Your task to perform on an android device: set an alarm Image 0: 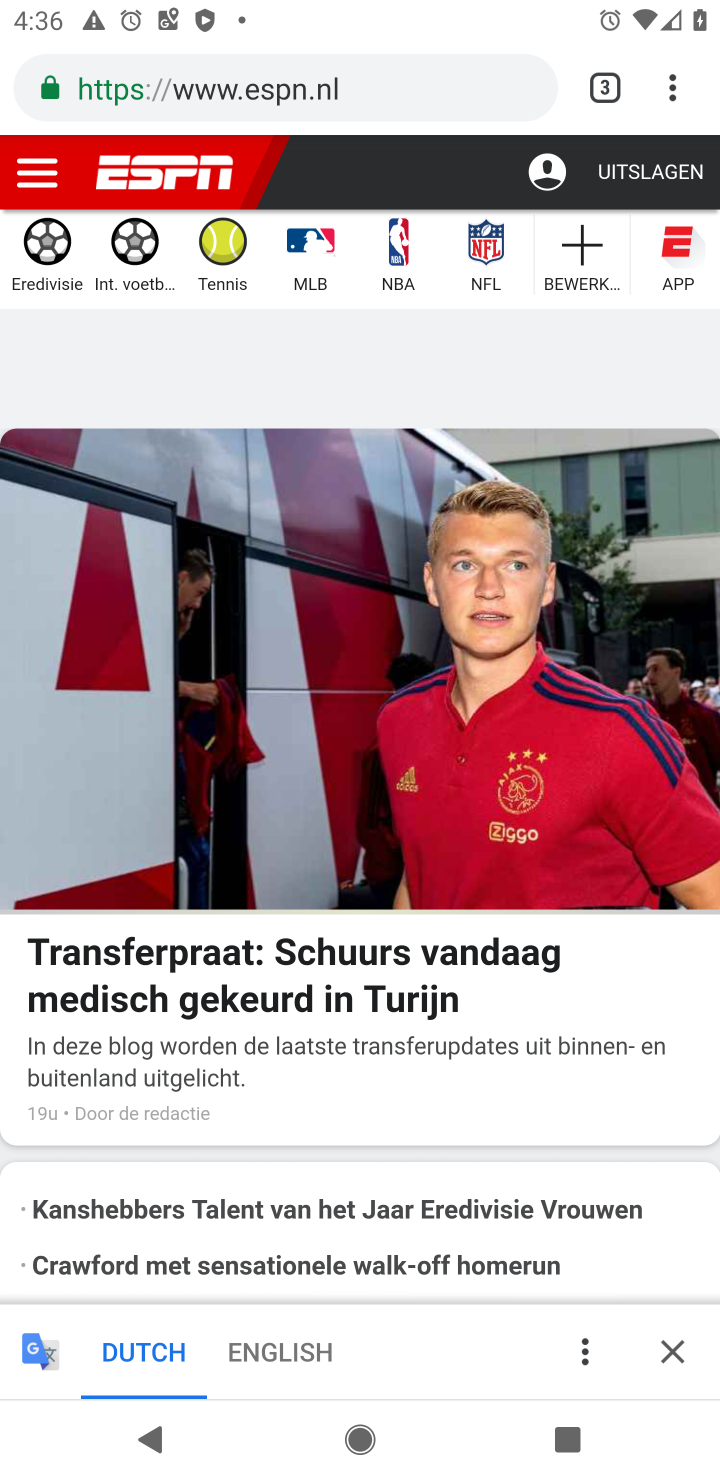
Step 0: press home button
Your task to perform on an android device: set an alarm Image 1: 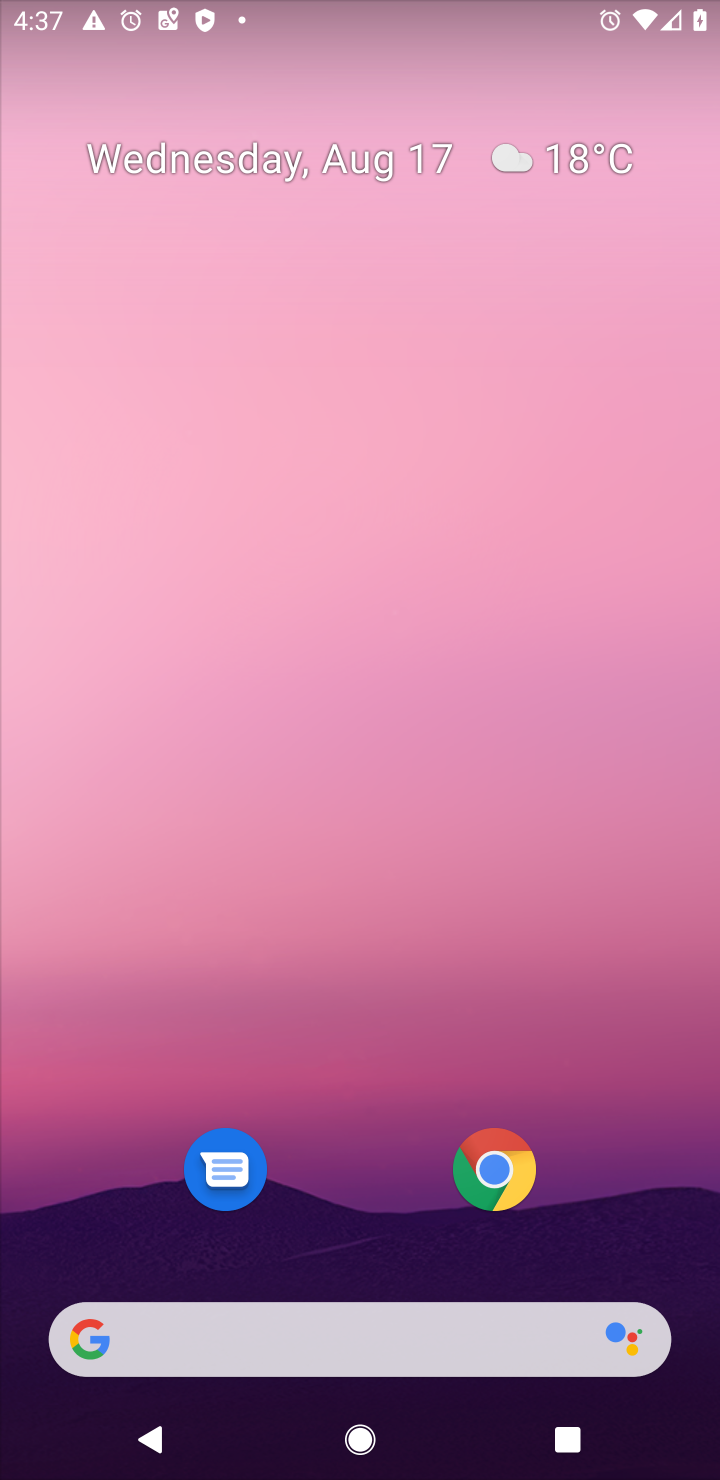
Step 1: drag from (370, 655) to (396, 88)
Your task to perform on an android device: set an alarm Image 2: 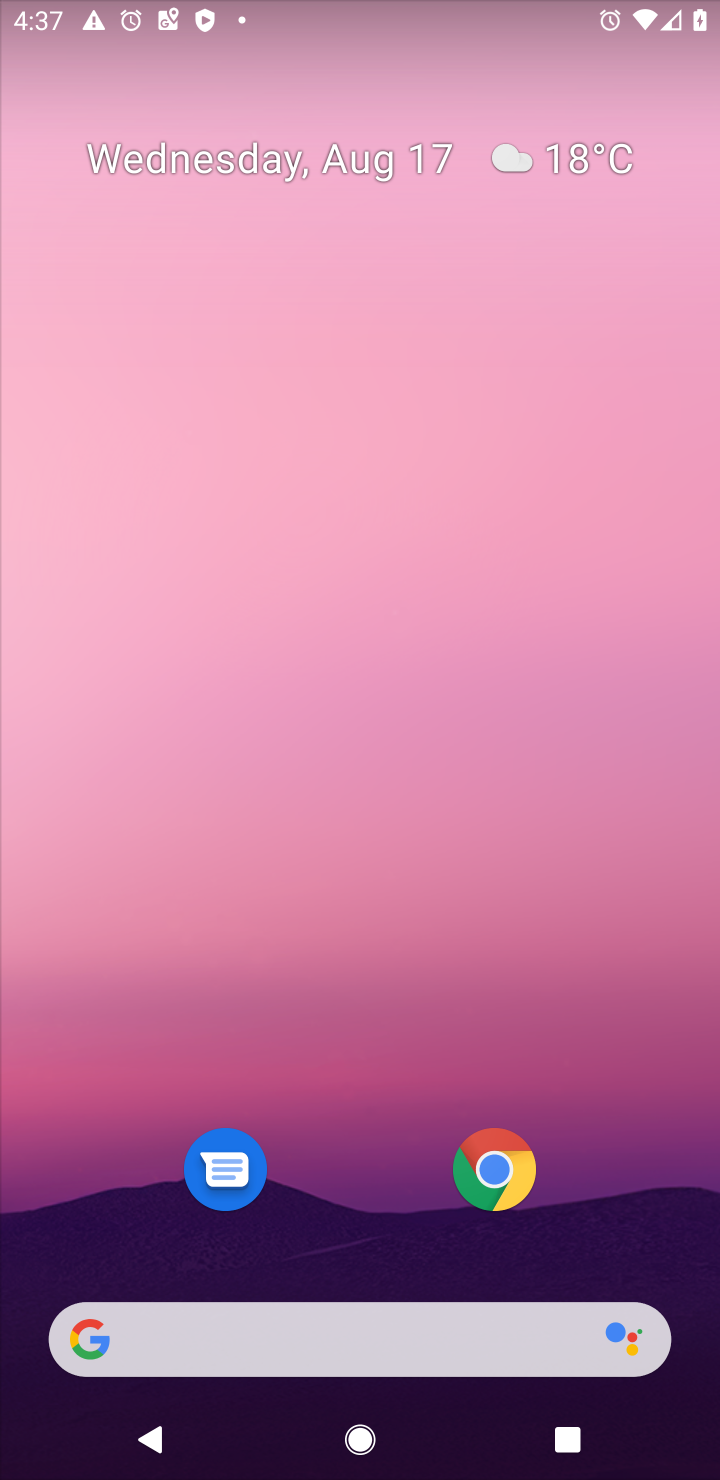
Step 2: drag from (327, 1054) to (263, 176)
Your task to perform on an android device: set an alarm Image 3: 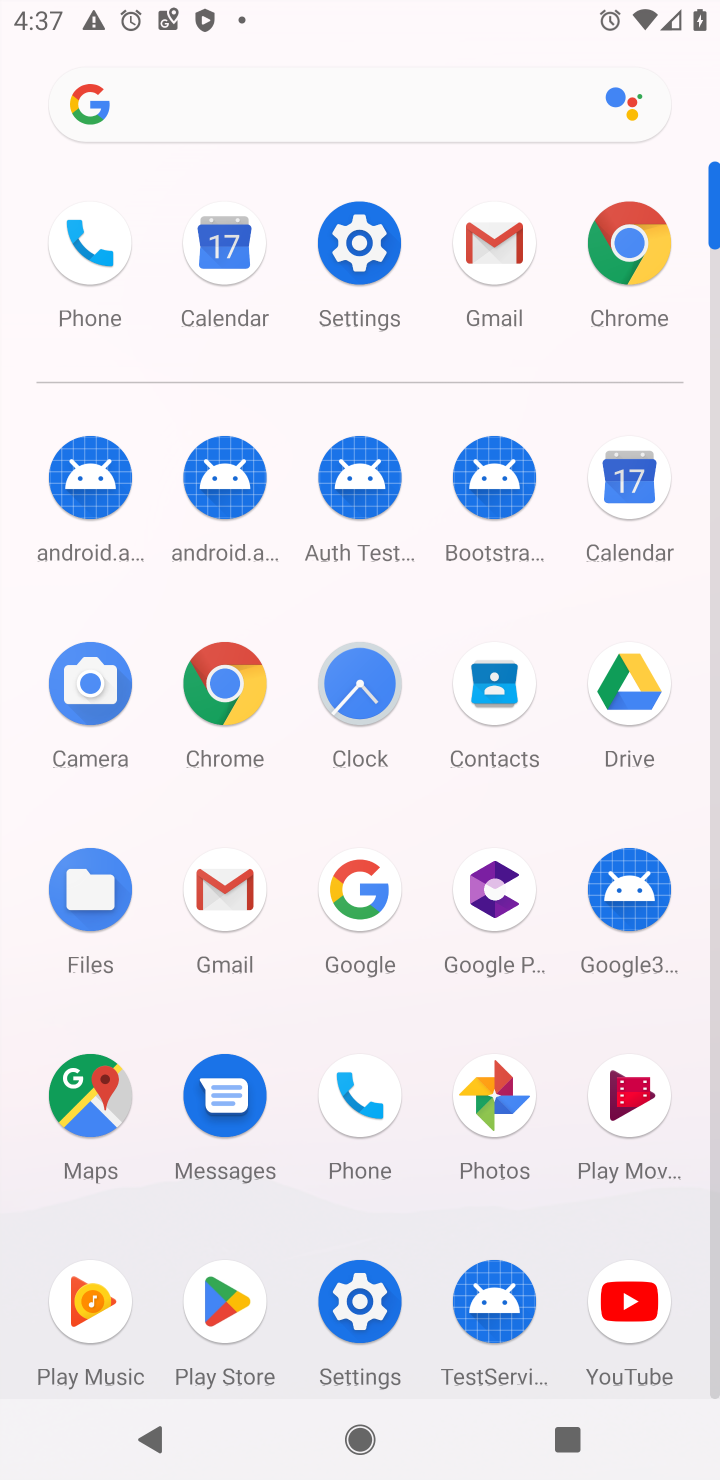
Step 3: click (364, 694)
Your task to perform on an android device: set an alarm Image 4: 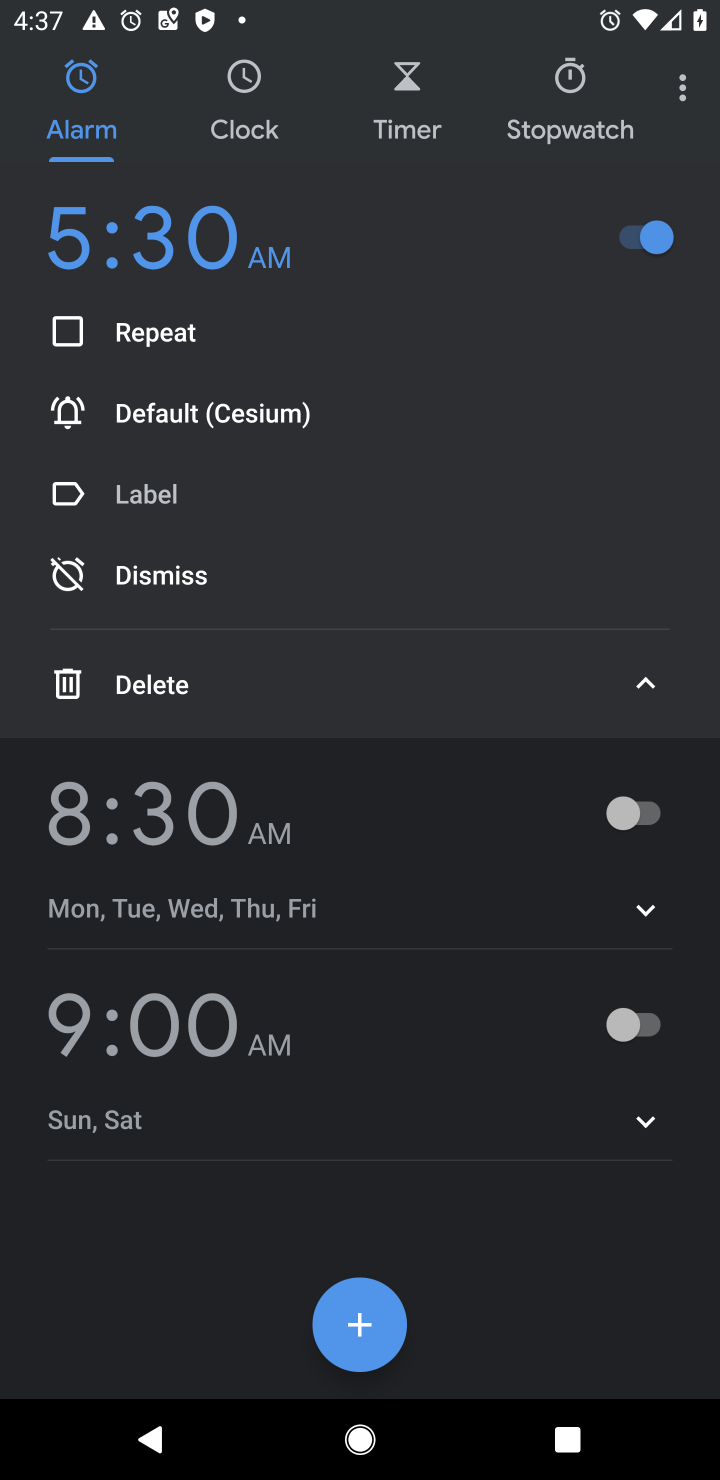
Step 4: click (338, 1313)
Your task to perform on an android device: set an alarm Image 5: 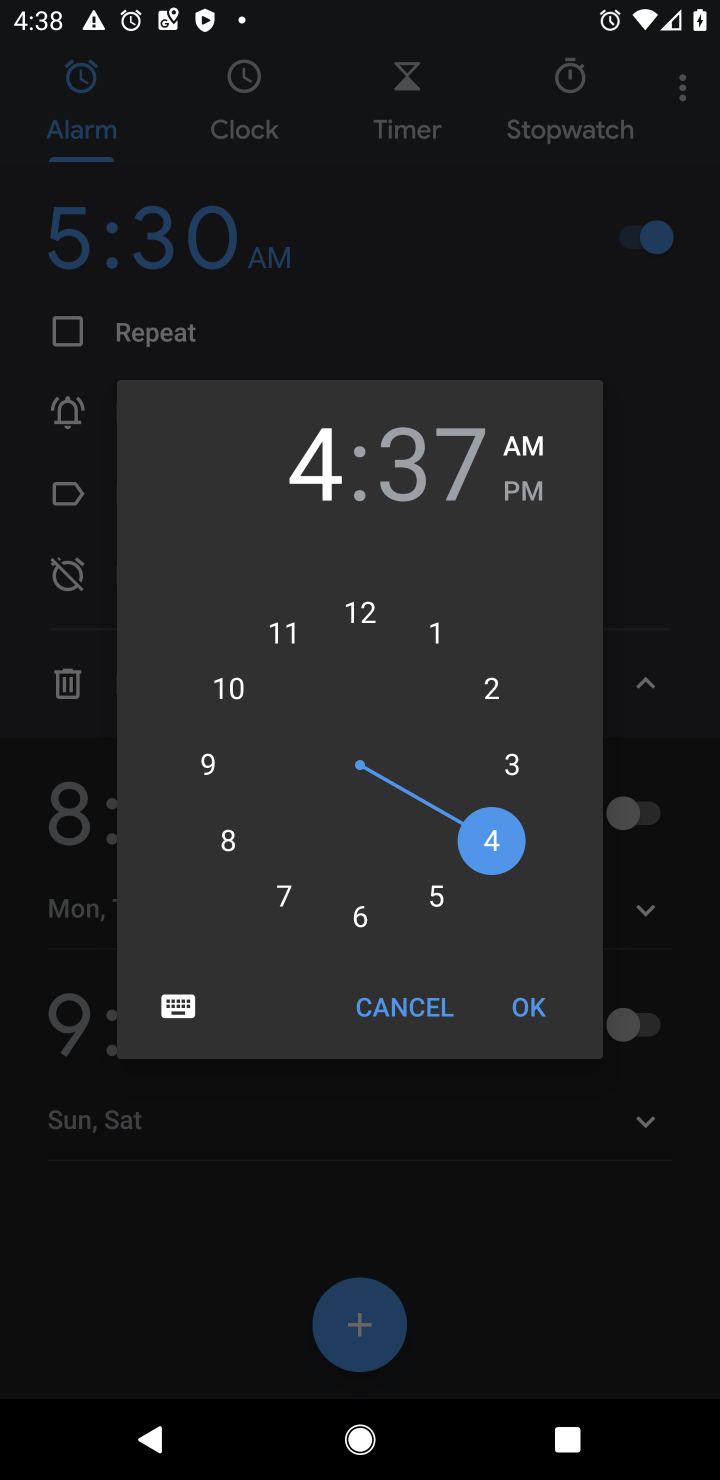
Step 5: click (355, 901)
Your task to perform on an android device: set an alarm Image 6: 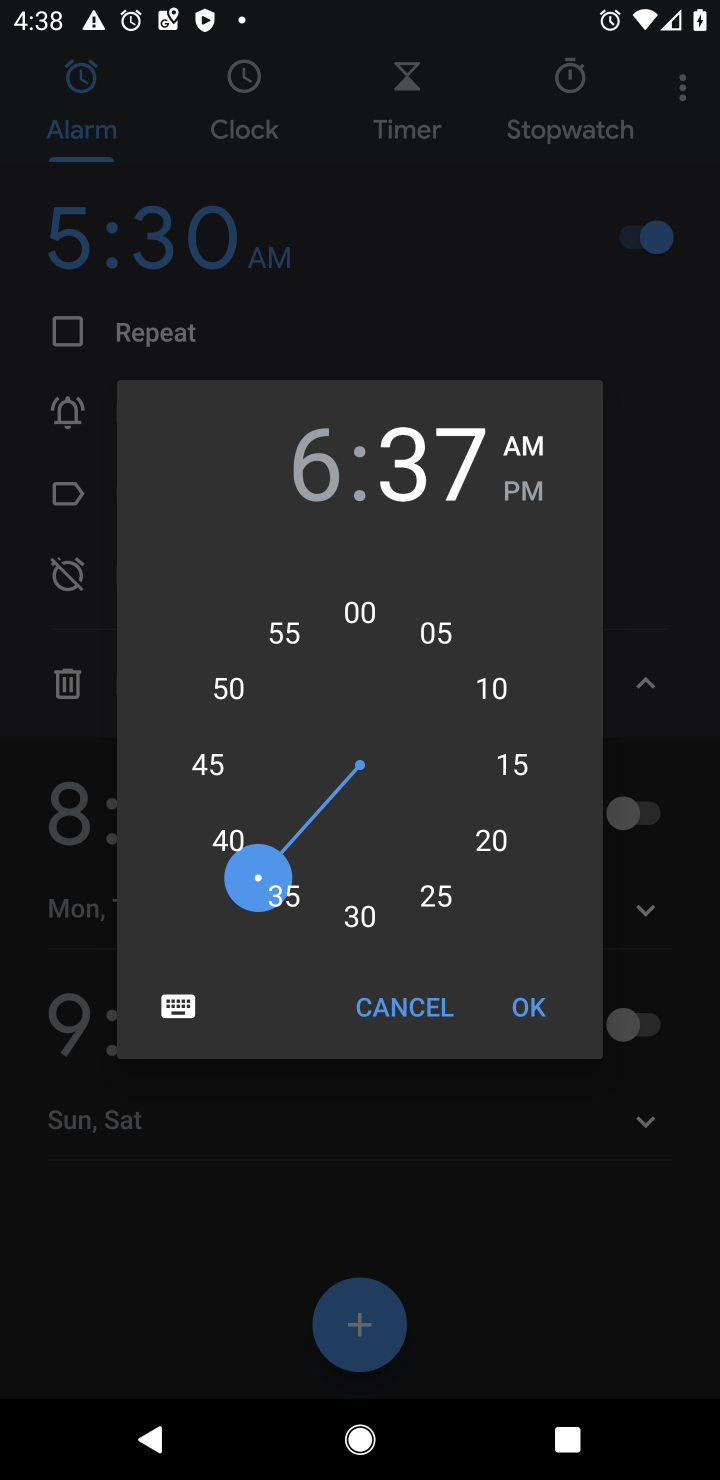
Step 6: click (340, 913)
Your task to perform on an android device: set an alarm Image 7: 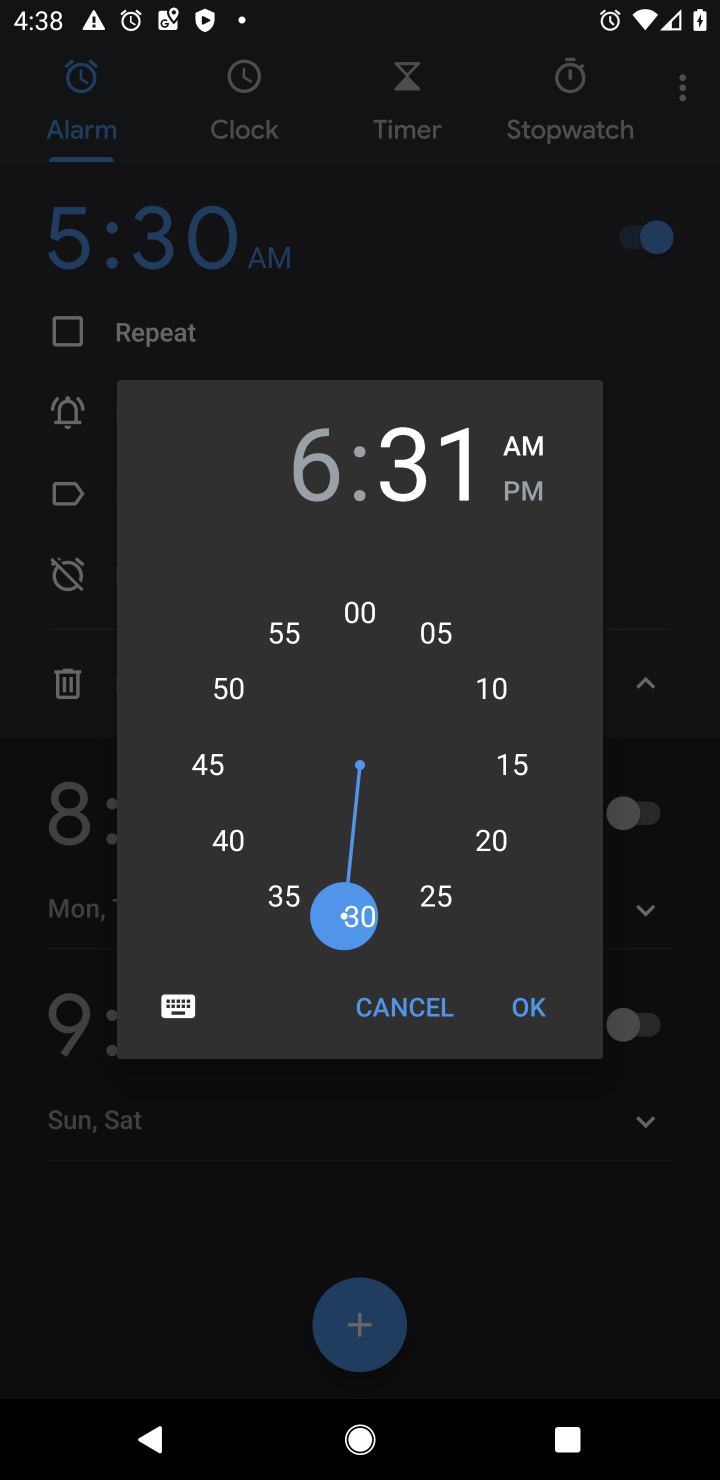
Step 7: task complete